Your task to perform on an android device: Go to privacy settings Image 0: 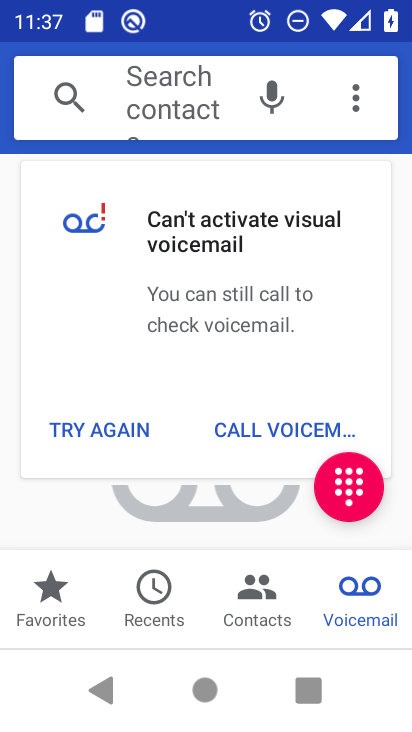
Step 0: press home button
Your task to perform on an android device: Go to privacy settings Image 1: 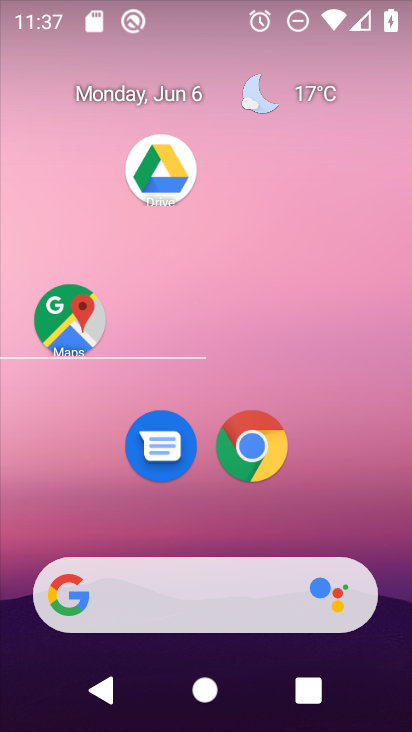
Step 1: drag from (192, 503) to (221, 4)
Your task to perform on an android device: Go to privacy settings Image 2: 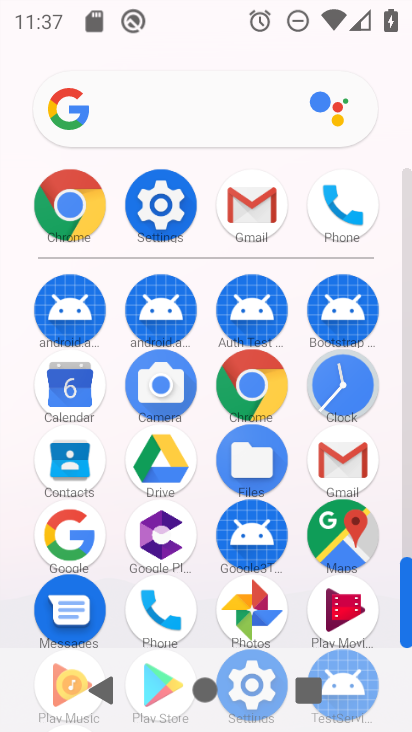
Step 2: click (144, 205)
Your task to perform on an android device: Go to privacy settings Image 3: 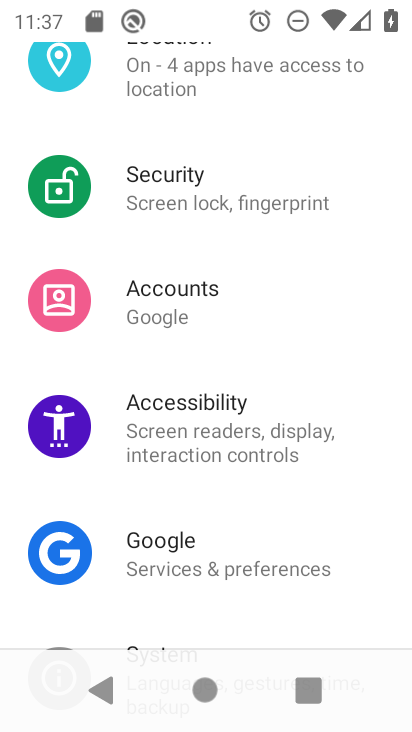
Step 3: drag from (153, 497) to (187, 101)
Your task to perform on an android device: Go to privacy settings Image 4: 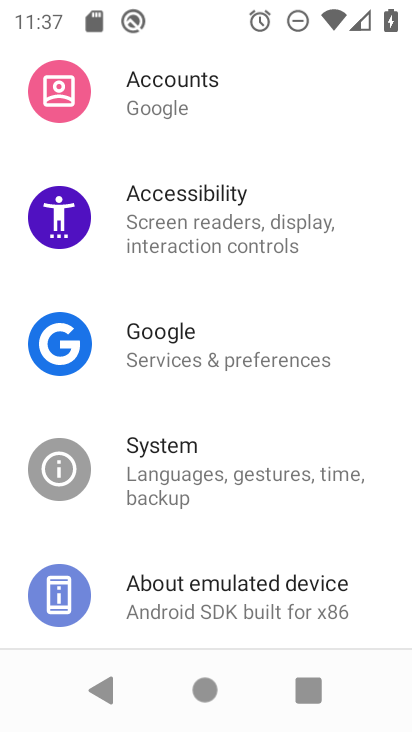
Step 4: drag from (162, 573) to (147, 254)
Your task to perform on an android device: Go to privacy settings Image 5: 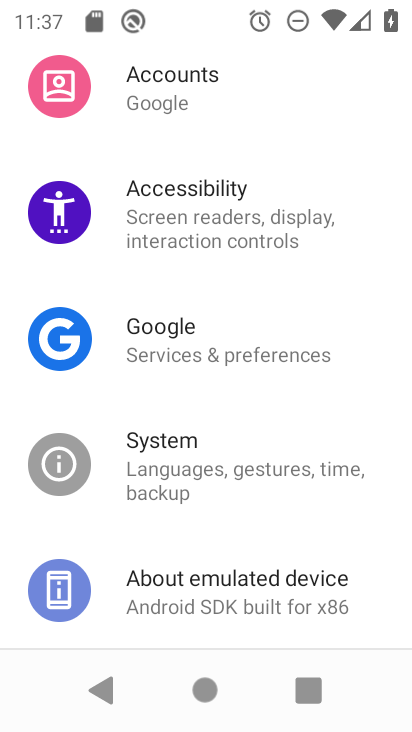
Step 5: drag from (200, 151) to (245, 586)
Your task to perform on an android device: Go to privacy settings Image 6: 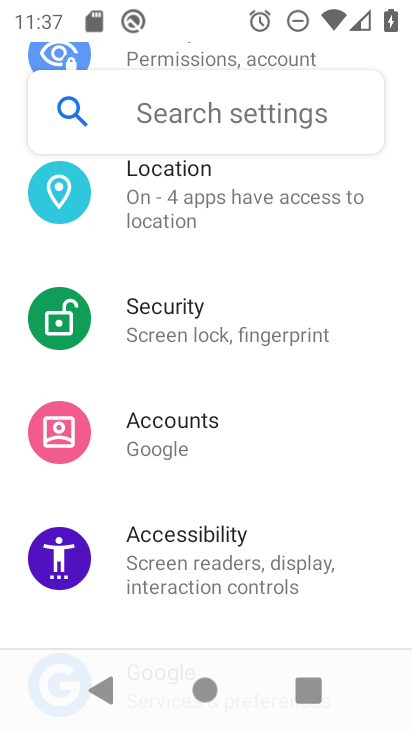
Step 6: drag from (189, 235) to (225, 552)
Your task to perform on an android device: Go to privacy settings Image 7: 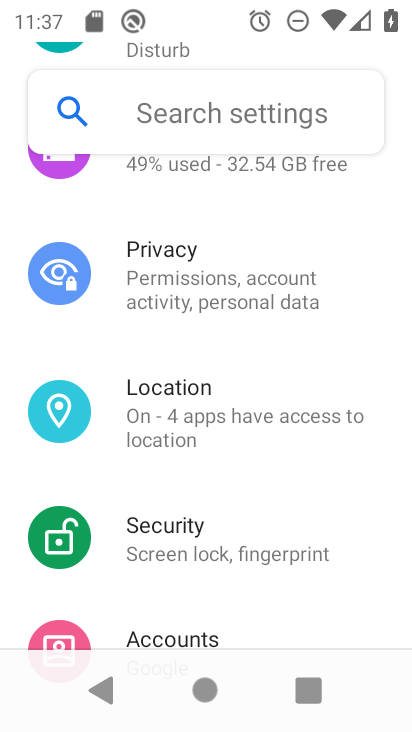
Step 7: click (186, 303)
Your task to perform on an android device: Go to privacy settings Image 8: 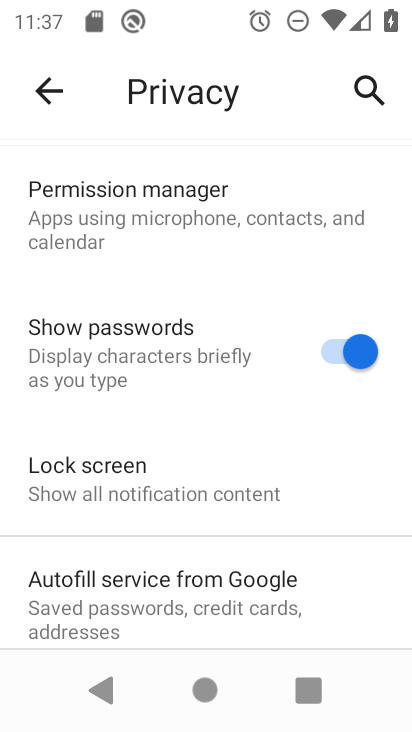
Step 8: task complete